Your task to perform on an android device: open app "Microsoft Outlook" (install if not already installed) Image 0: 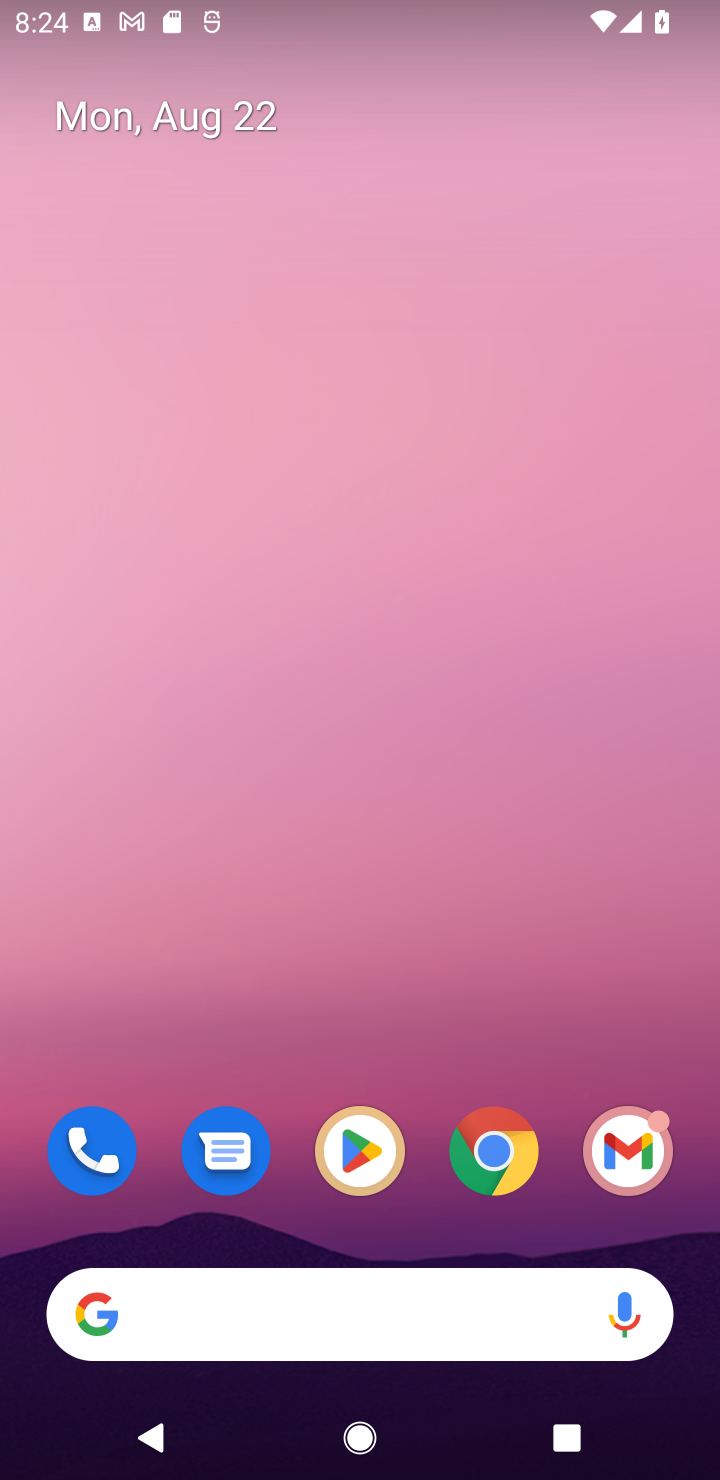
Step 0: press home button
Your task to perform on an android device: open app "Microsoft Outlook" (install if not already installed) Image 1: 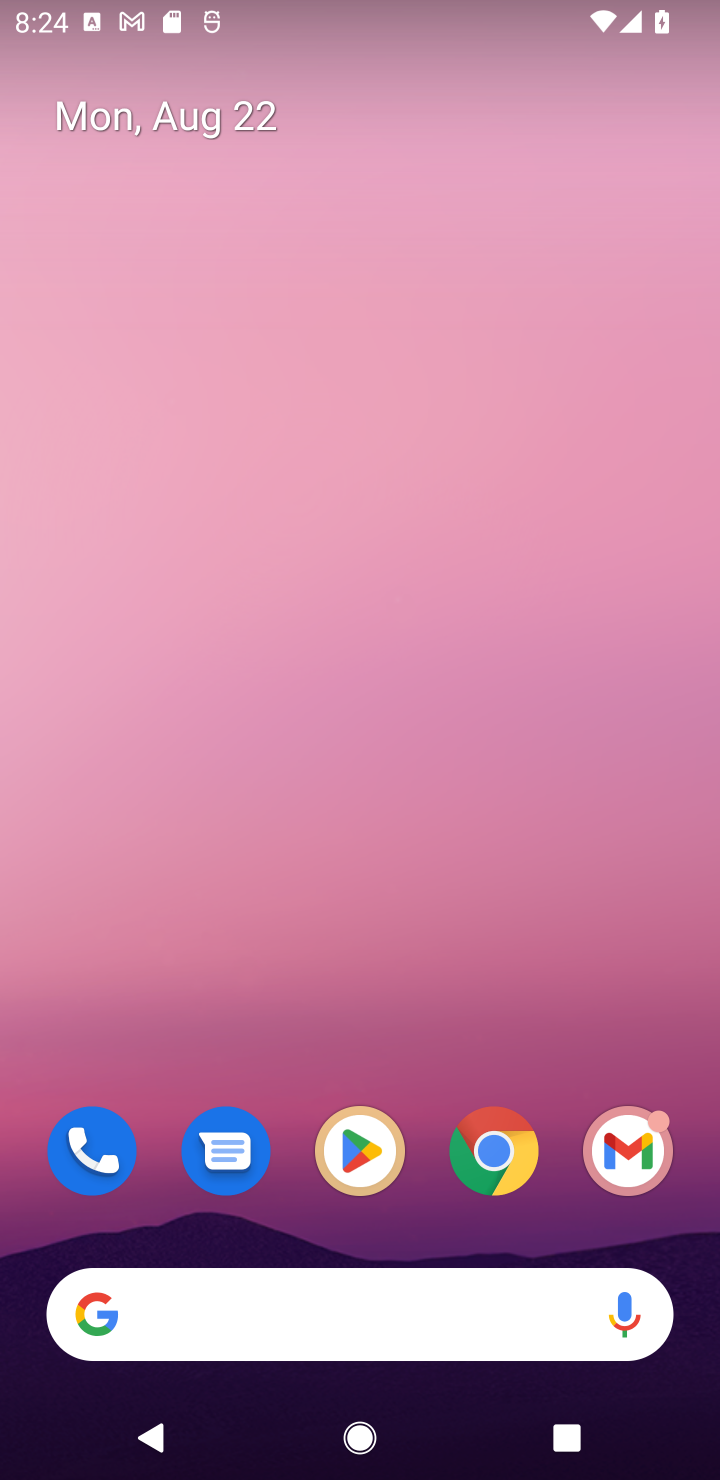
Step 1: press home button
Your task to perform on an android device: open app "Microsoft Outlook" (install if not already installed) Image 2: 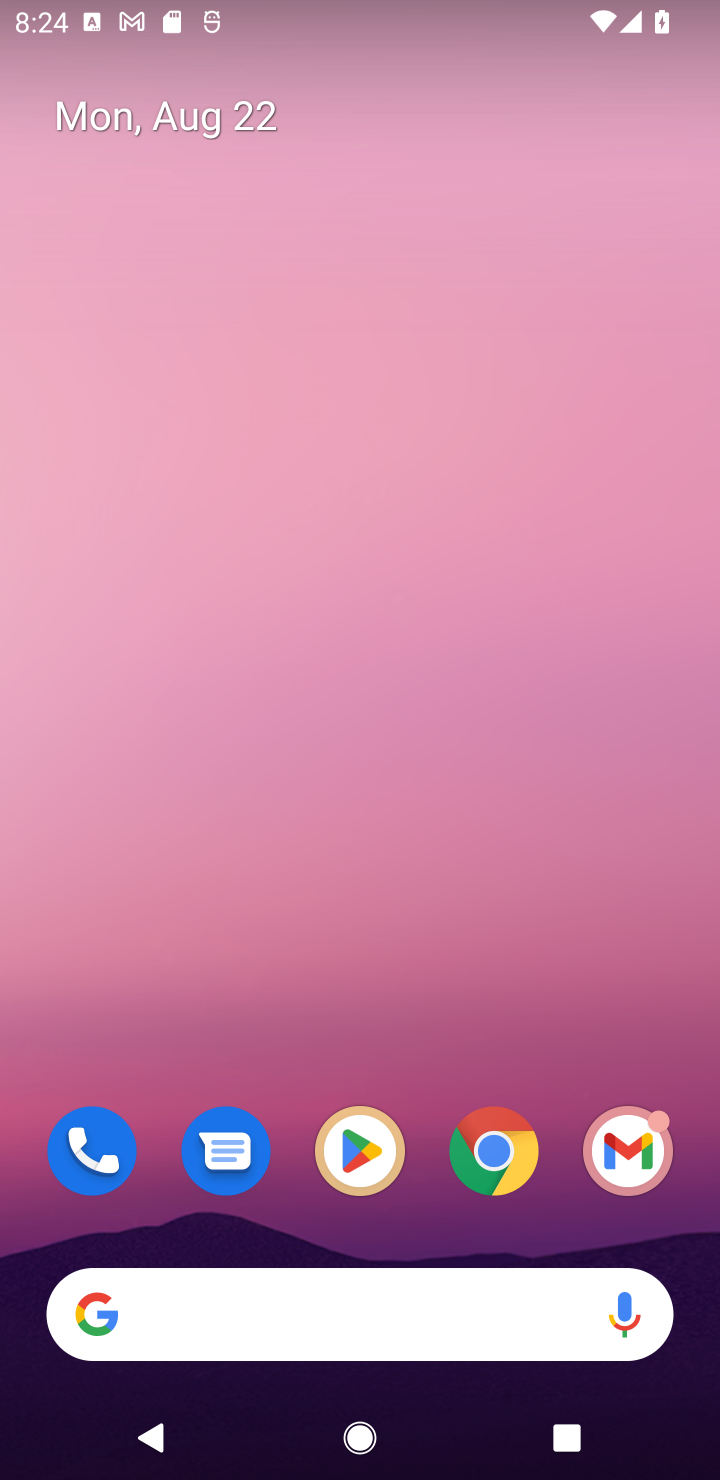
Step 2: click (346, 1134)
Your task to perform on an android device: open app "Microsoft Outlook" (install if not already installed) Image 3: 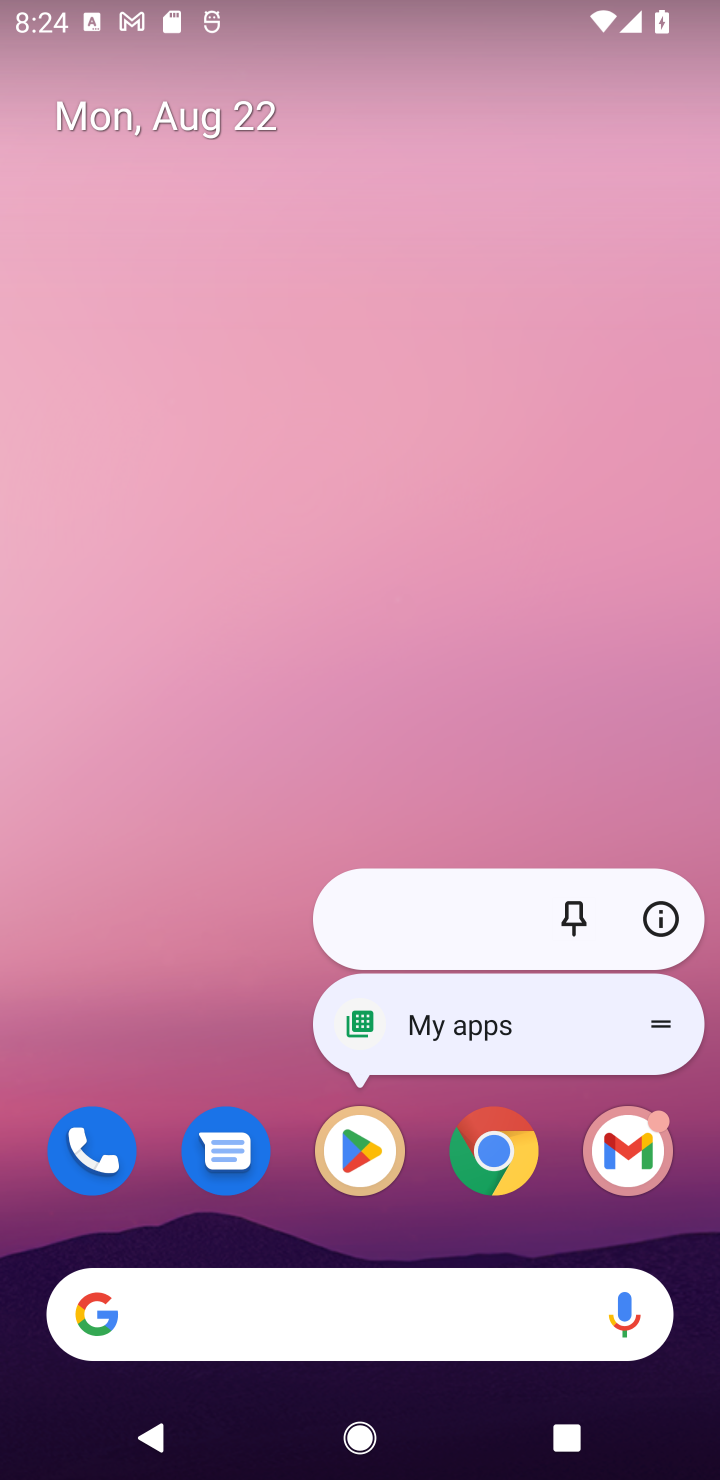
Step 3: click (346, 1138)
Your task to perform on an android device: open app "Microsoft Outlook" (install if not already installed) Image 4: 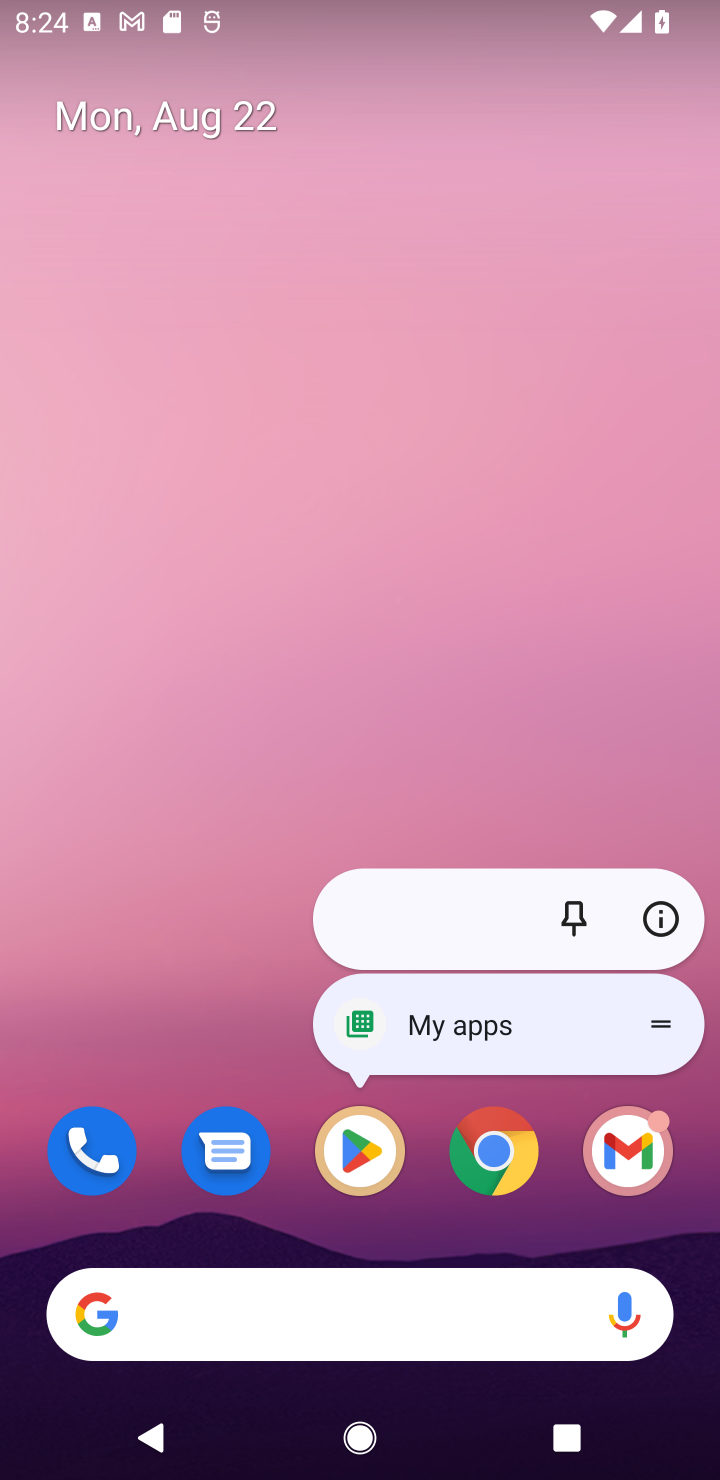
Step 4: click (349, 1152)
Your task to perform on an android device: open app "Microsoft Outlook" (install if not already installed) Image 5: 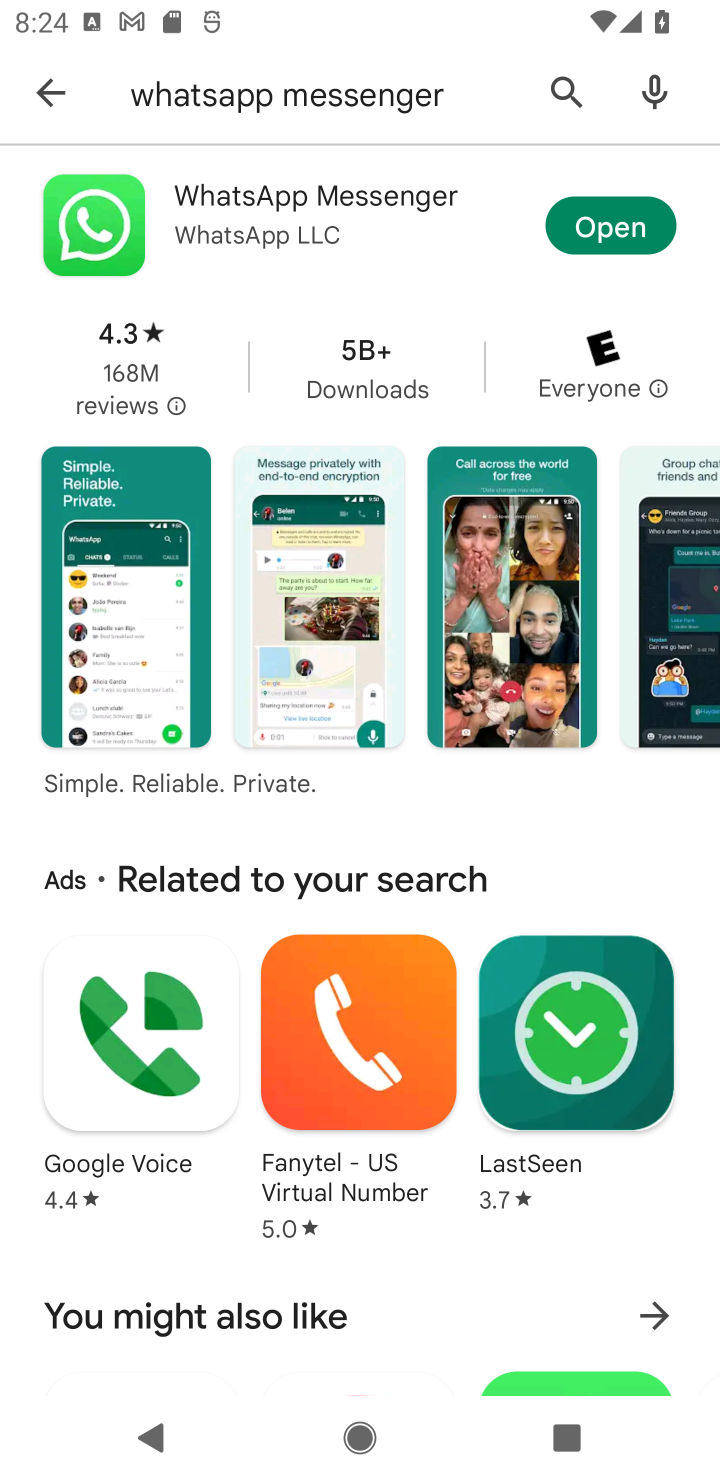
Step 5: click (571, 97)
Your task to perform on an android device: open app "Microsoft Outlook" (install if not already installed) Image 6: 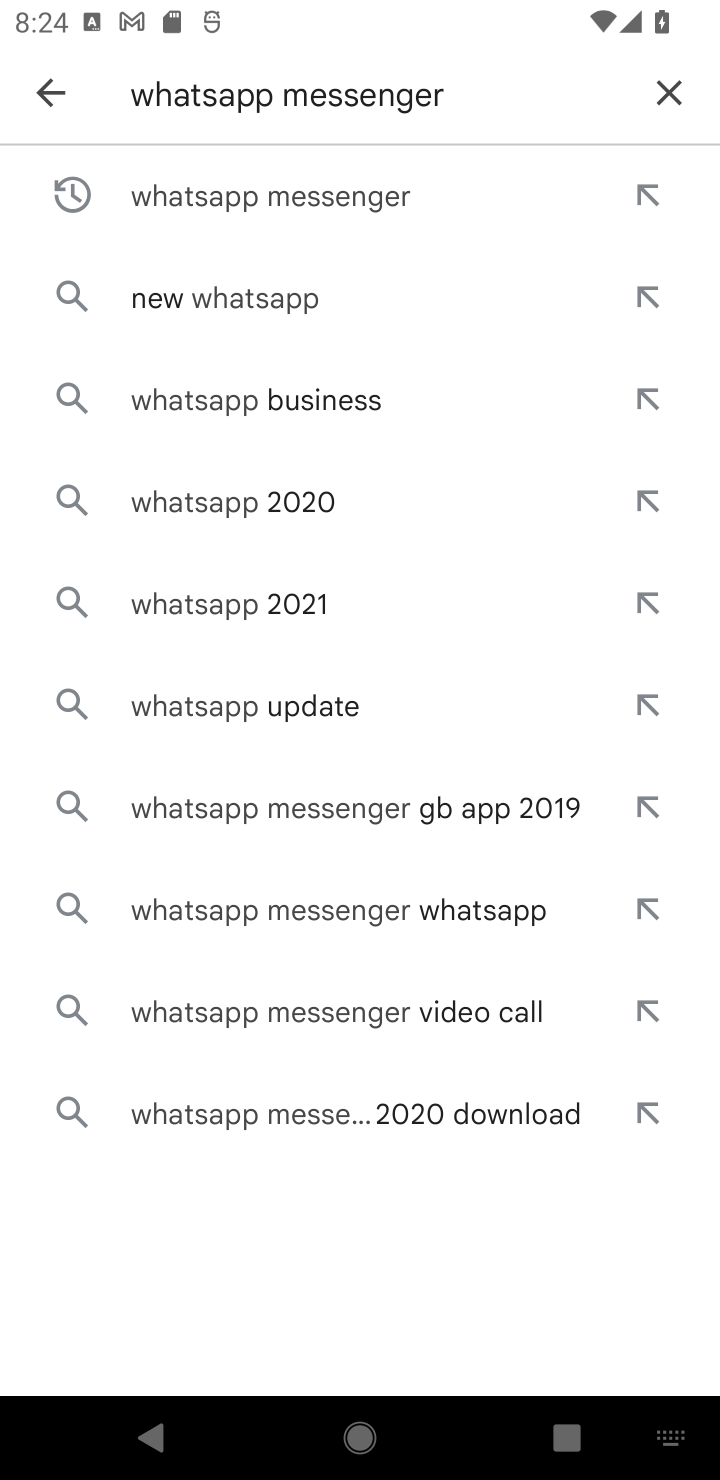
Step 6: click (663, 89)
Your task to perform on an android device: open app "Microsoft Outlook" (install if not already installed) Image 7: 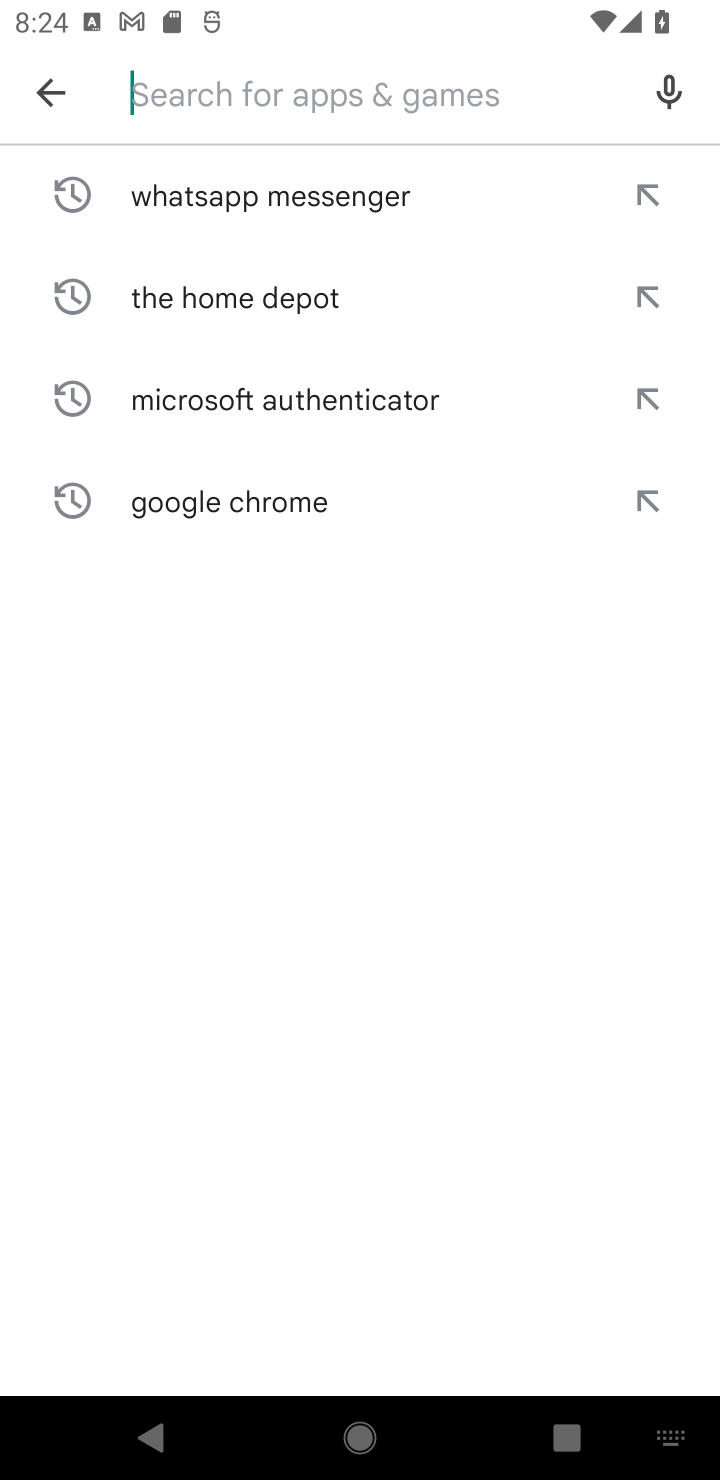
Step 7: type "Microsoft Outlook"
Your task to perform on an android device: open app "Microsoft Outlook" (install if not already installed) Image 8: 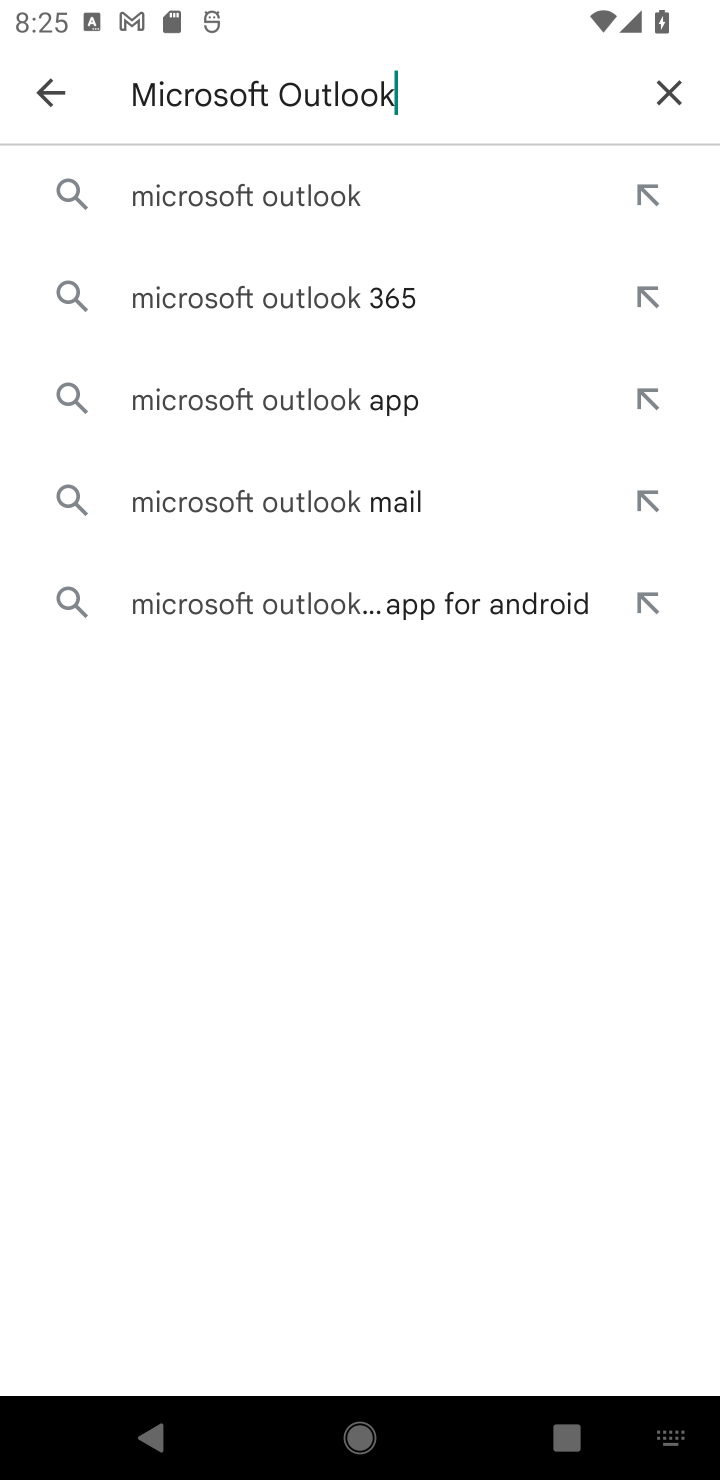
Step 8: click (317, 185)
Your task to perform on an android device: open app "Microsoft Outlook" (install if not already installed) Image 9: 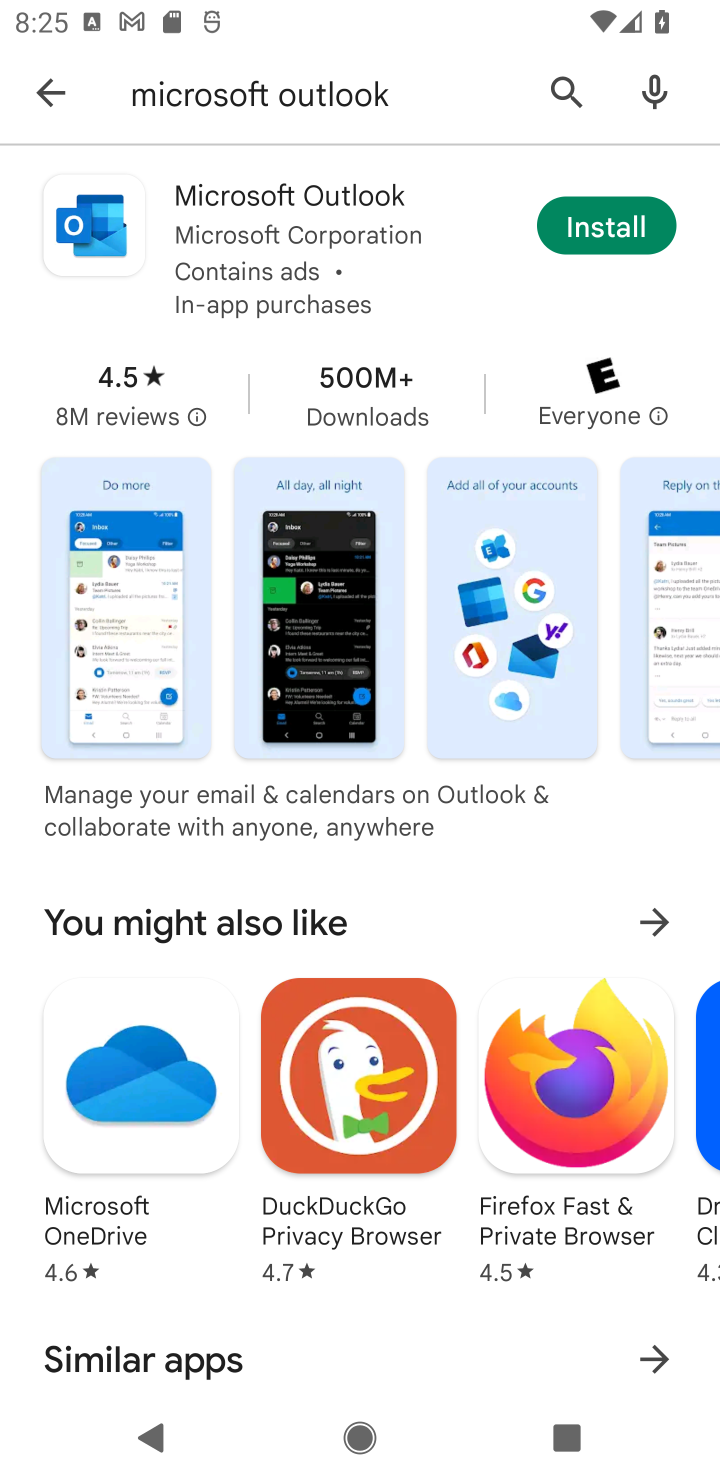
Step 9: click (630, 218)
Your task to perform on an android device: open app "Microsoft Outlook" (install if not already installed) Image 10: 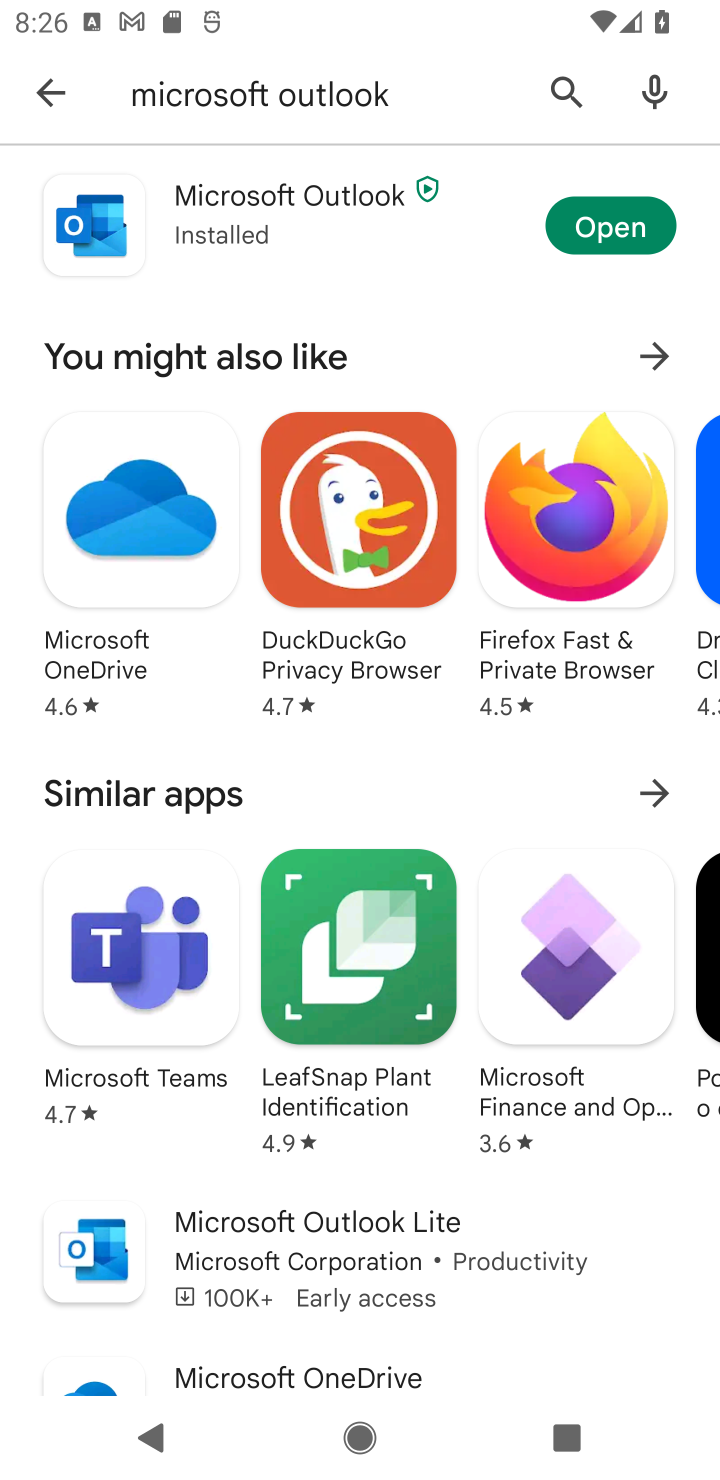
Step 10: click (630, 224)
Your task to perform on an android device: open app "Microsoft Outlook" (install if not already installed) Image 11: 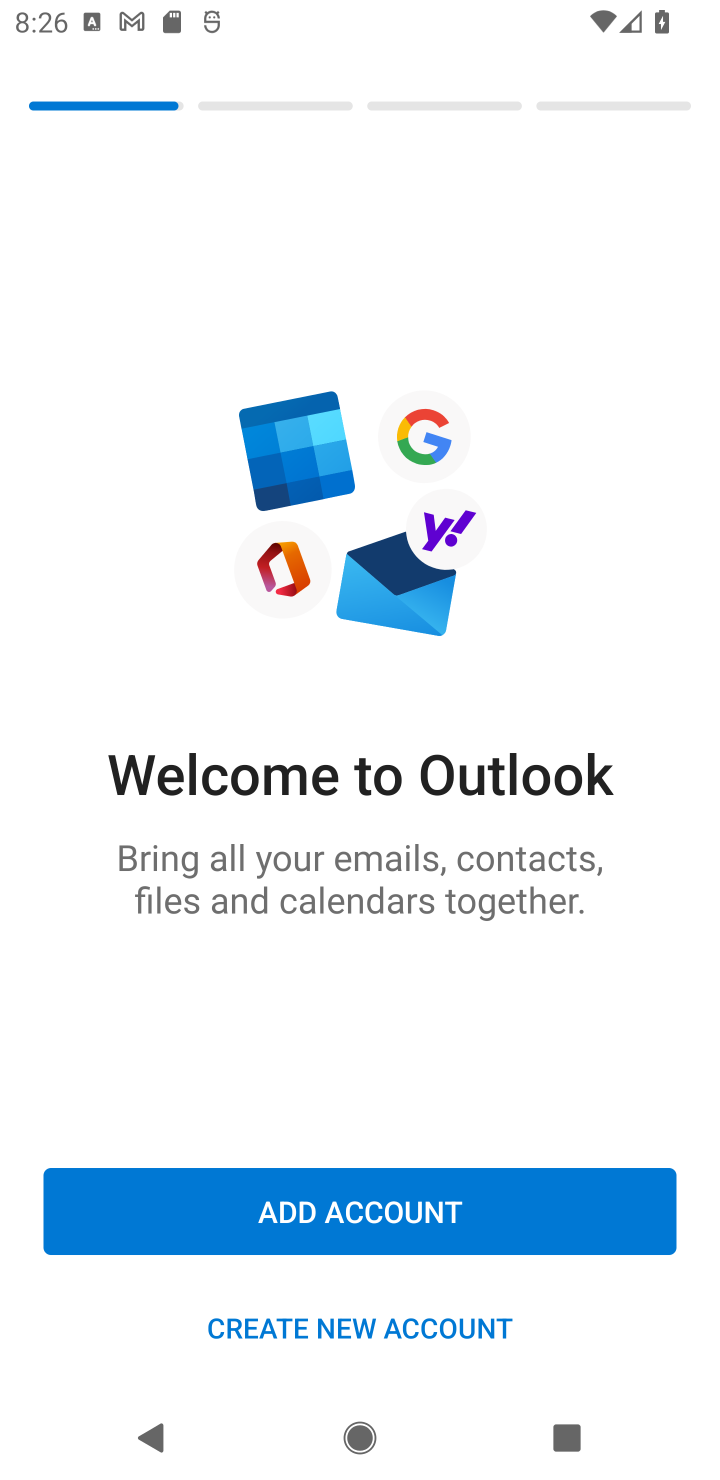
Step 11: task complete